Your task to perform on an android device: turn on location history Image 0: 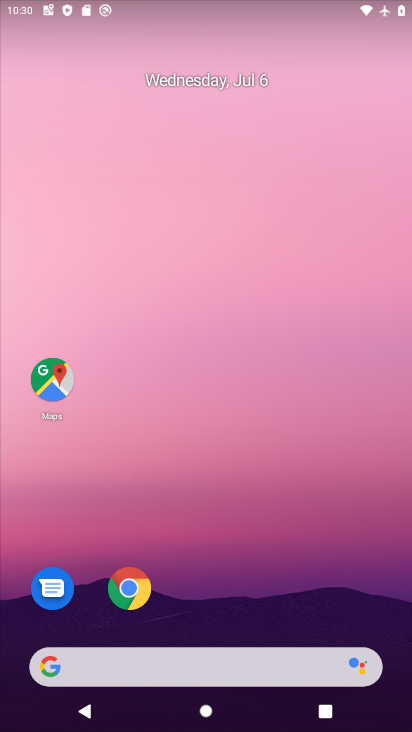
Step 0: drag from (215, 631) to (252, 176)
Your task to perform on an android device: turn on location history Image 1: 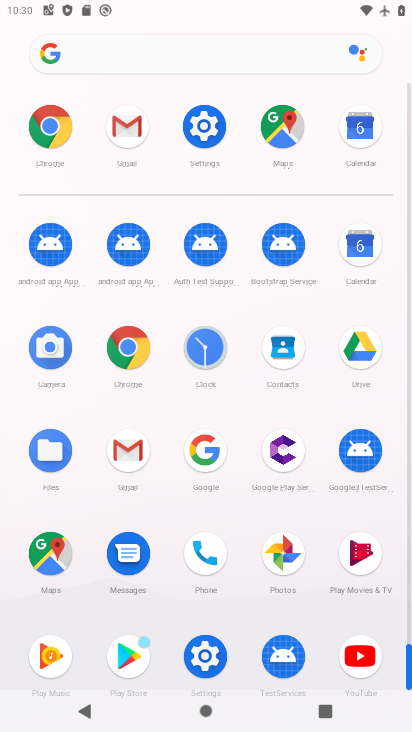
Step 1: click (213, 119)
Your task to perform on an android device: turn on location history Image 2: 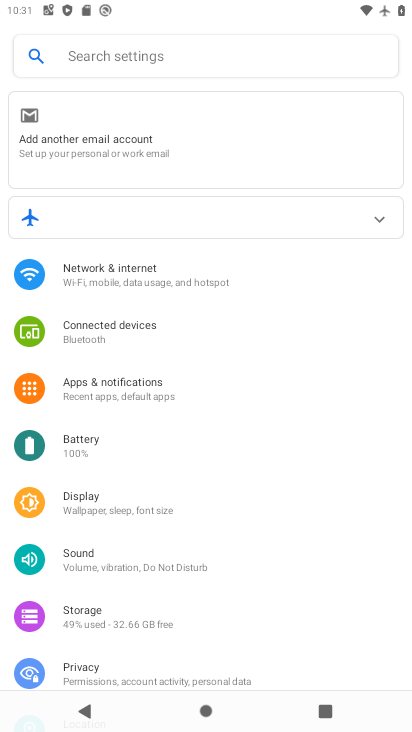
Step 2: drag from (214, 608) to (250, 209)
Your task to perform on an android device: turn on location history Image 3: 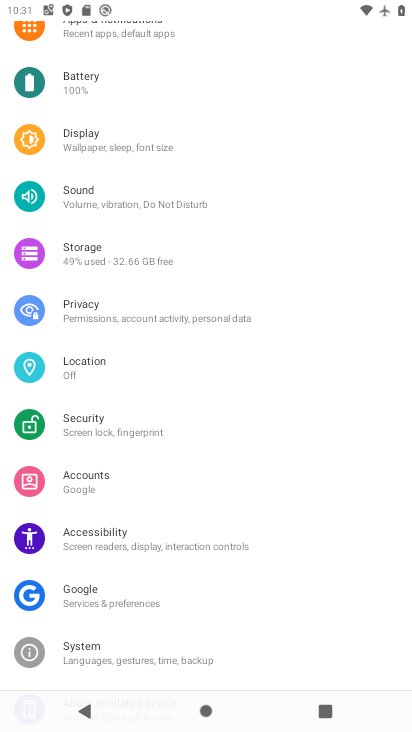
Step 3: click (103, 368)
Your task to perform on an android device: turn on location history Image 4: 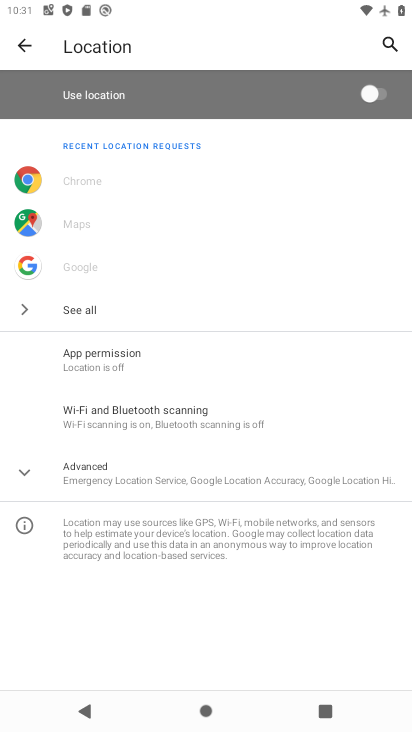
Step 4: click (148, 480)
Your task to perform on an android device: turn on location history Image 5: 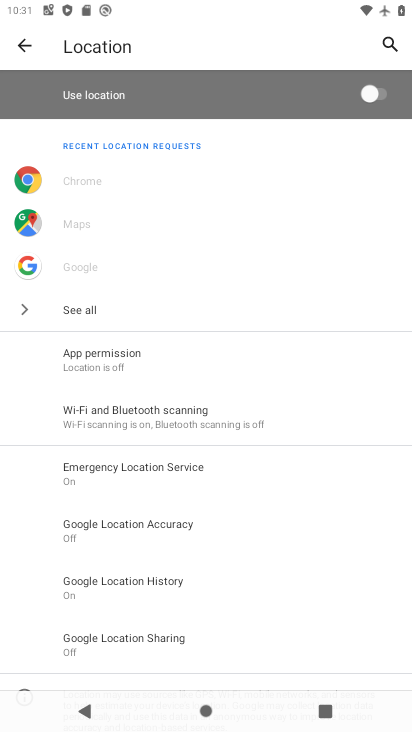
Step 5: click (195, 573)
Your task to perform on an android device: turn on location history Image 6: 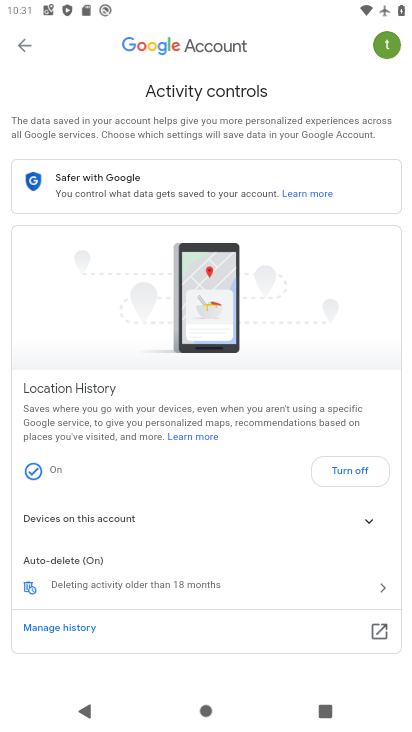
Step 6: click (51, 472)
Your task to perform on an android device: turn on location history Image 7: 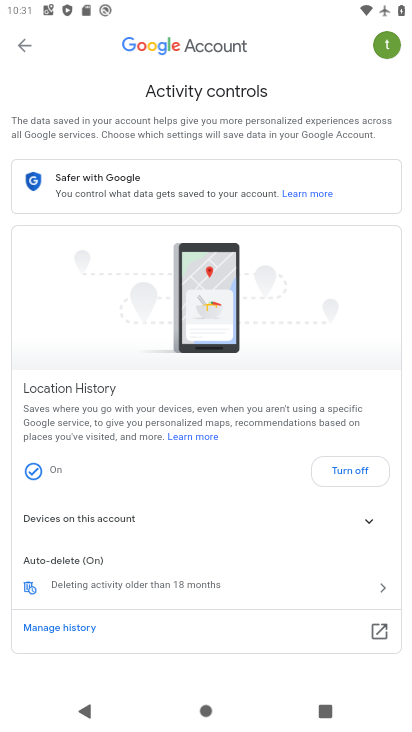
Step 7: task complete